Your task to perform on an android device: Open Maps and search for coffee Image 0: 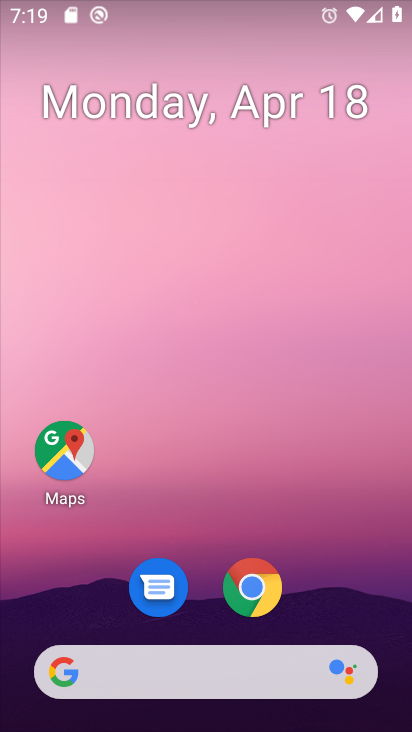
Step 0: click (80, 458)
Your task to perform on an android device: Open Maps and search for coffee Image 1: 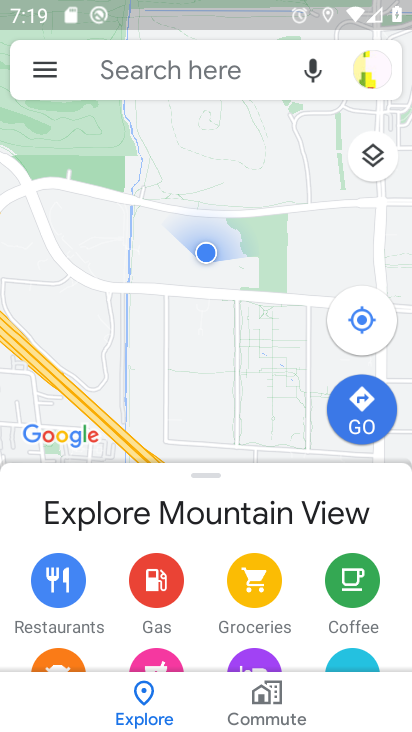
Step 1: click (221, 60)
Your task to perform on an android device: Open Maps and search for coffee Image 2: 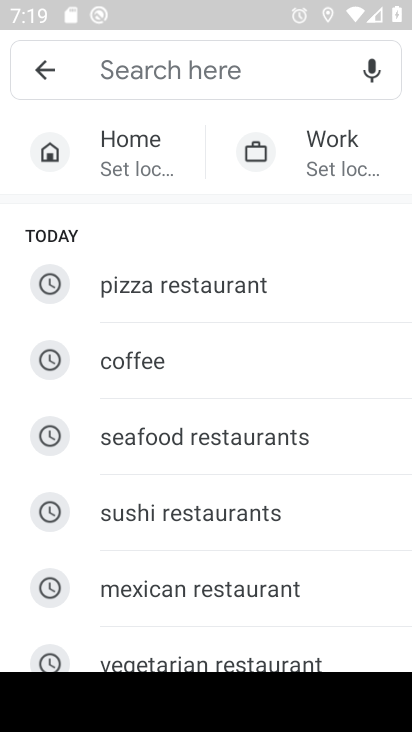
Step 2: type "coffee"
Your task to perform on an android device: Open Maps and search for coffee Image 3: 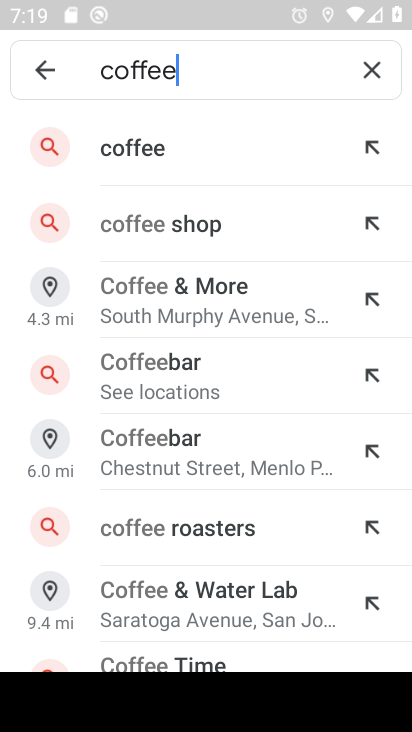
Step 3: click (379, 147)
Your task to perform on an android device: Open Maps and search for coffee Image 4: 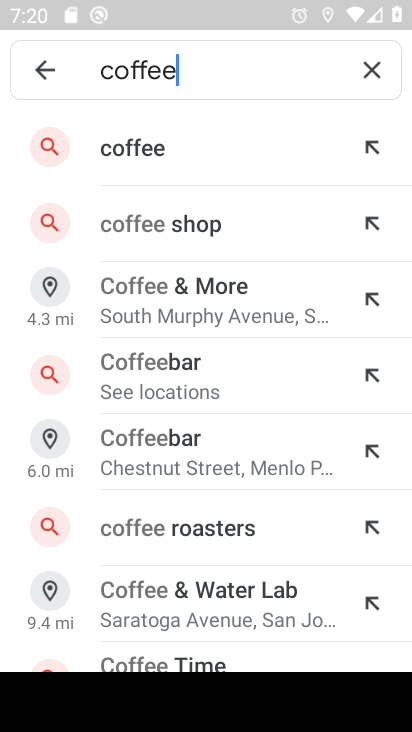
Step 4: click (182, 150)
Your task to perform on an android device: Open Maps and search for coffee Image 5: 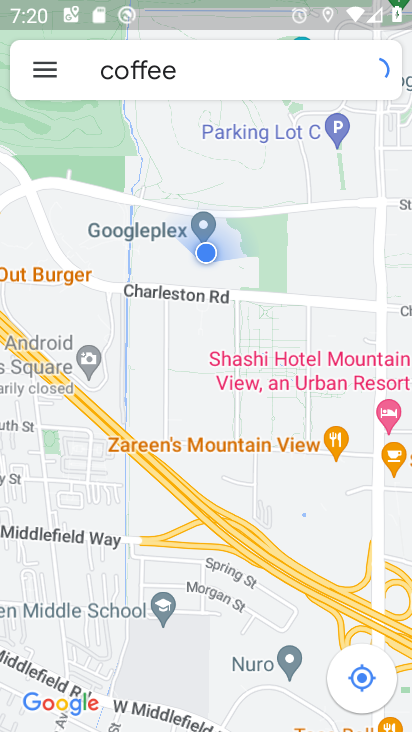
Step 5: click (150, 152)
Your task to perform on an android device: Open Maps and search for coffee Image 6: 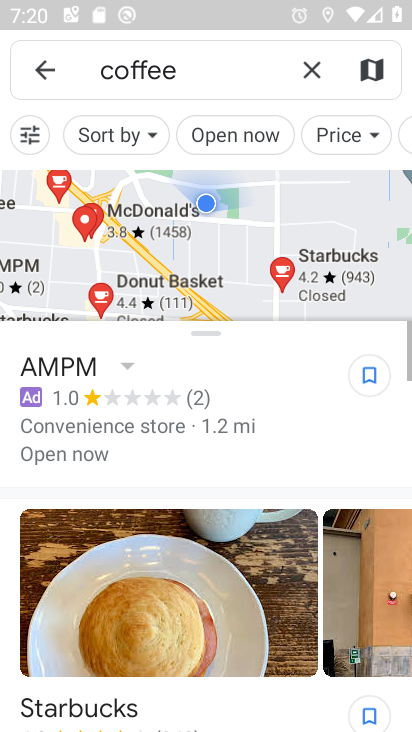
Step 6: task complete